Your task to perform on an android device: show emergency info Image 0: 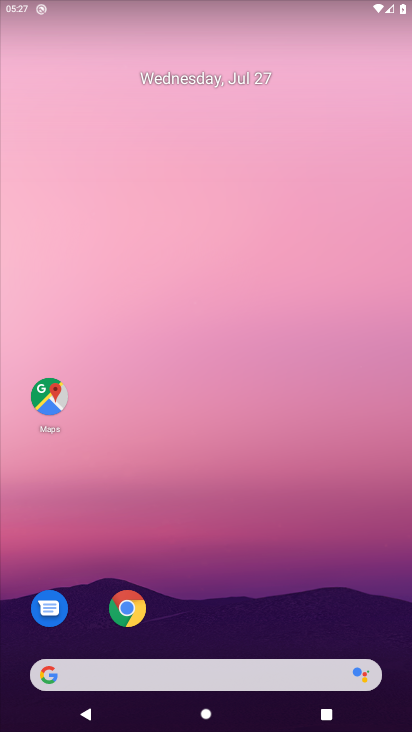
Step 0: press home button
Your task to perform on an android device: show emergency info Image 1: 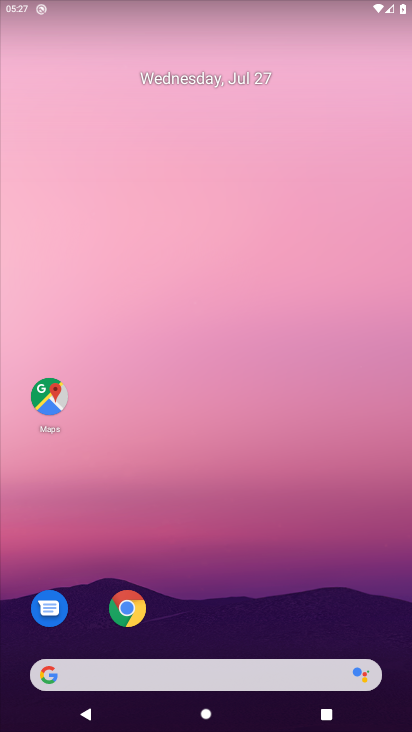
Step 1: drag from (233, 631) to (353, 16)
Your task to perform on an android device: show emergency info Image 2: 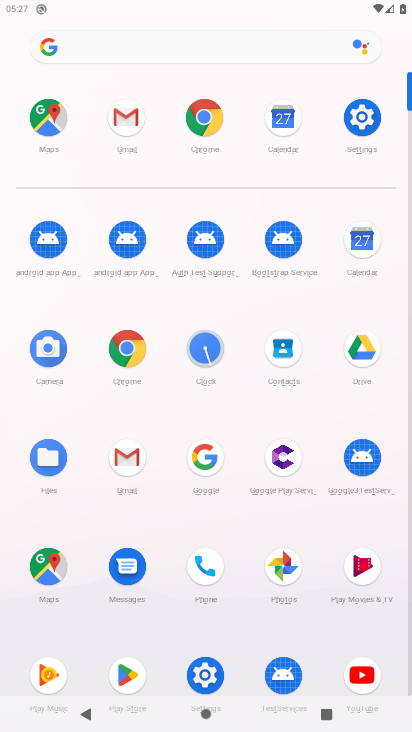
Step 2: click (360, 115)
Your task to perform on an android device: show emergency info Image 3: 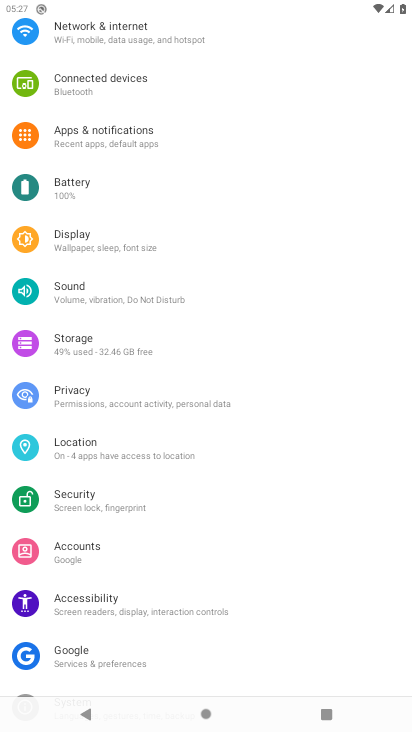
Step 3: drag from (266, 643) to (326, 60)
Your task to perform on an android device: show emergency info Image 4: 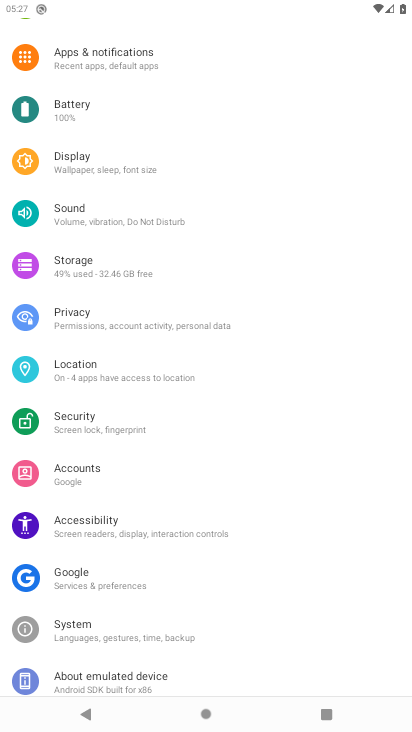
Step 4: click (79, 671)
Your task to perform on an android device: show emergency info Image 5: 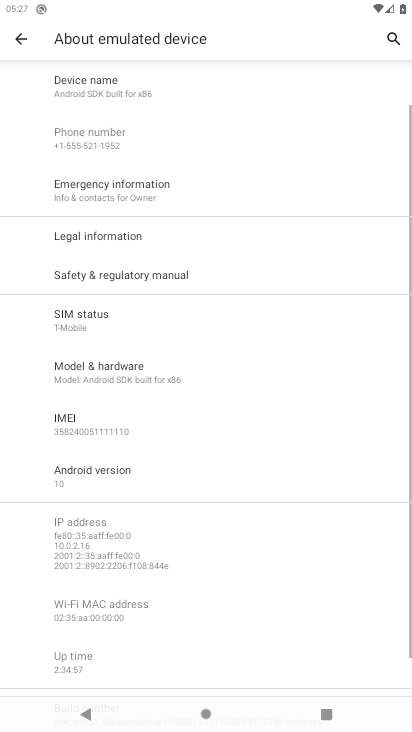
Step 5: click (119, 185)
Your task to perform on an android device: show emergency info Image 6: 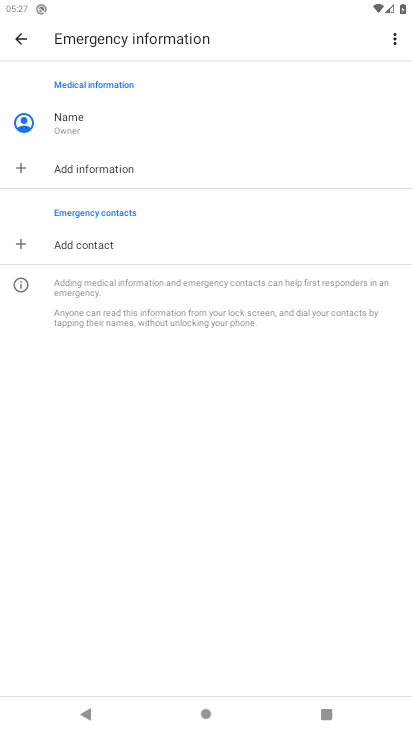
Step 6: task complete